Your task to perform on an android device: change text size in settings app Image 0: 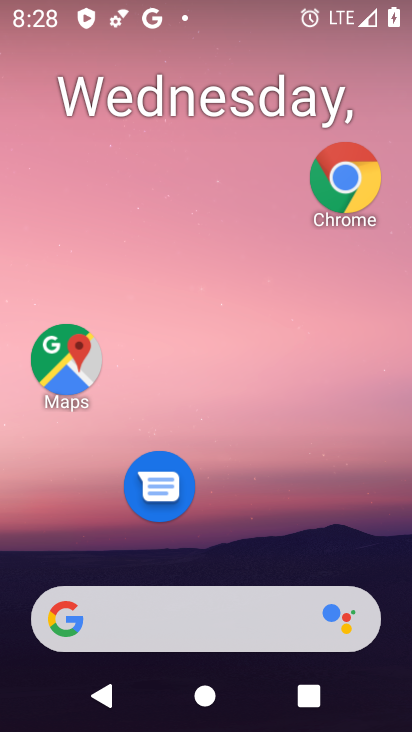
Step 0: drag from (211, 644) to (235, 49)
Your task to perform on an android device: change text size in settings app Image 1: 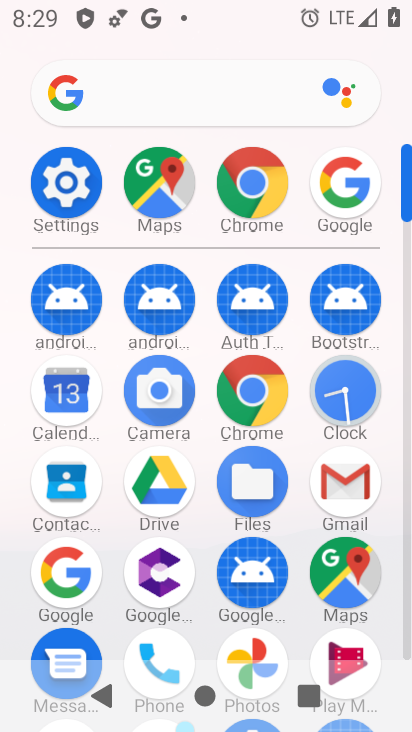
Step 1: click (70, 174)
Your task to perform on an android device: change text size in settings app Image 2: 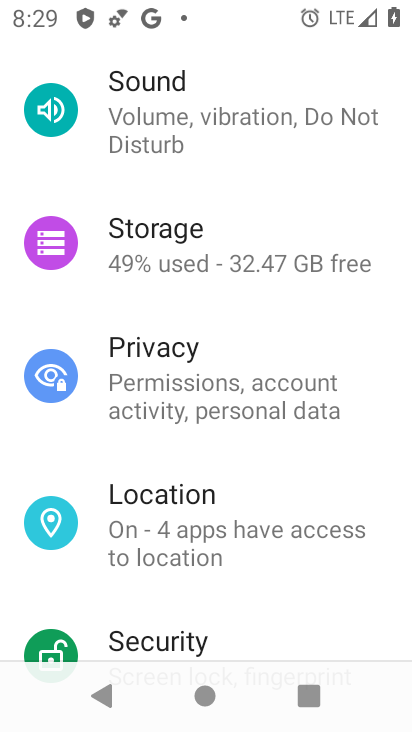
Step 2: drag from (203, 329) to (162, 617)
Your task to perform on an android device: change text size in settings app Image 3: 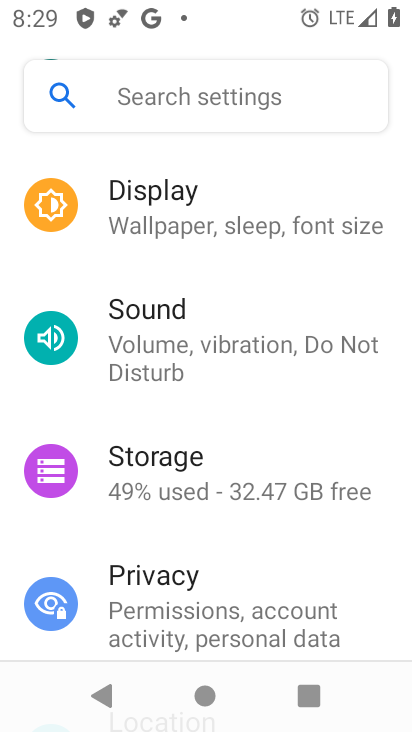
Step 3: click (192, 237)
Your task to perform on an android device: change text size in settings app Image 4: 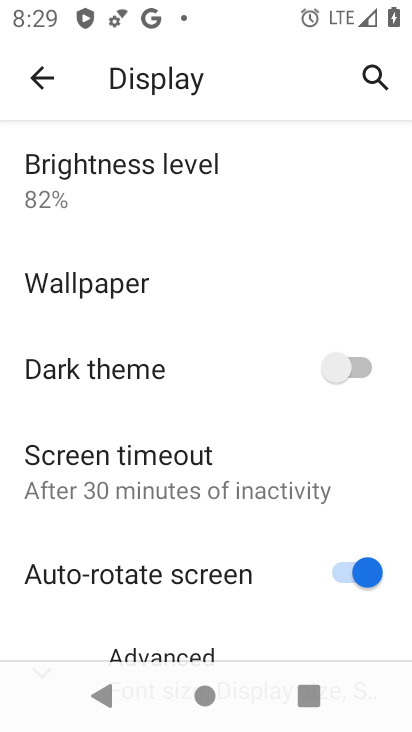
Step 4: drag from (139, 498) to (171, 231)
Your task to perform on an android device: change text size in settings app Image 5: 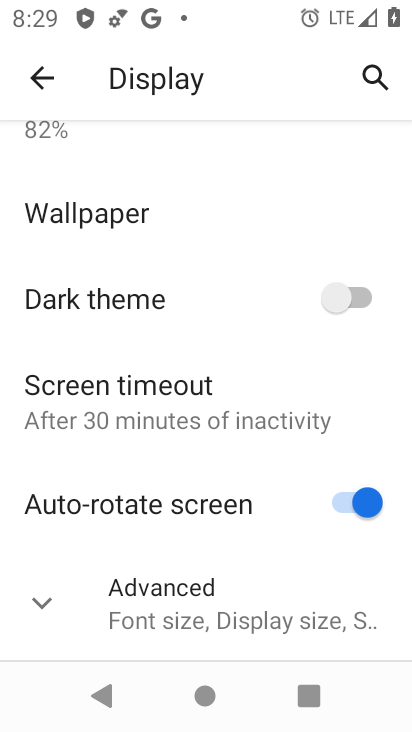
Step 5: click (220, 626)
Your task to perform on an android device: change text size in settings app Image 6: 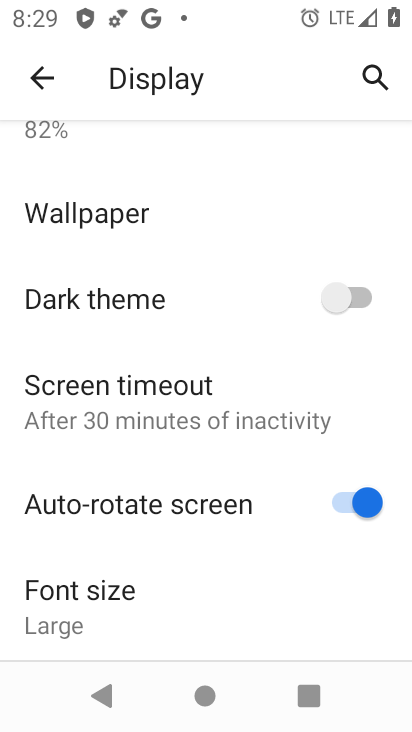
Step 6: drag from (222, 598) to (274, 221)
Your task to perform on an android device: change text size in settings app Image 7: 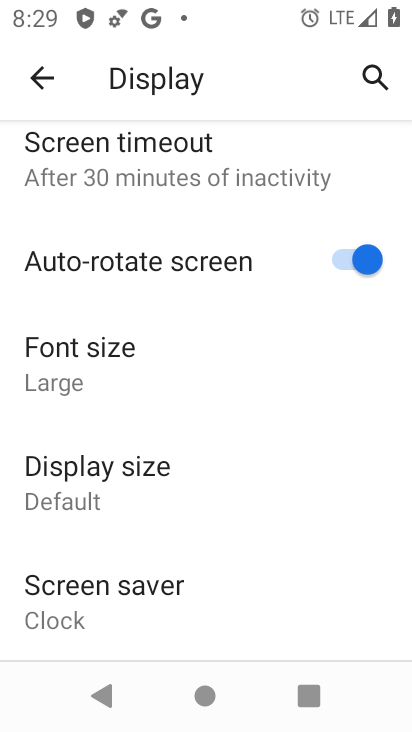
Step 7: click (112, 379)
Your task to perform on an android device: change text size in settings app Image 8: 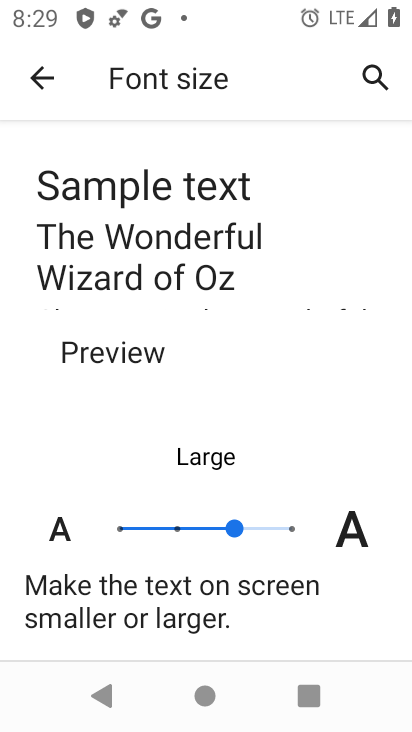
Step 8: click (177, 530)
Your task to perform on an android device: change text size in settings app Image 9: 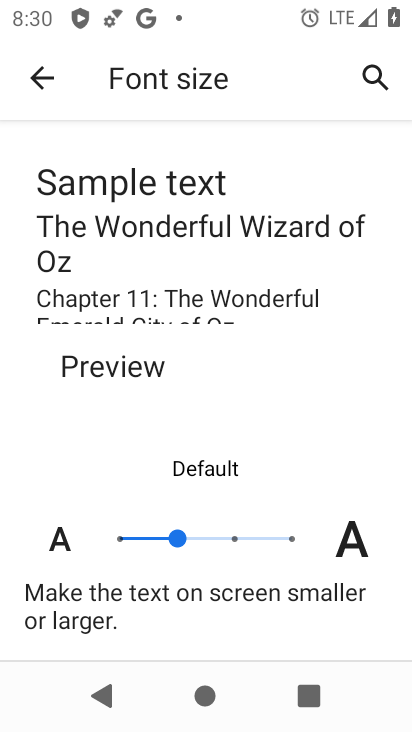
Step 9: task complete